Your task to perform on an android device: Show me productivity apps on the Play Store Image 0: 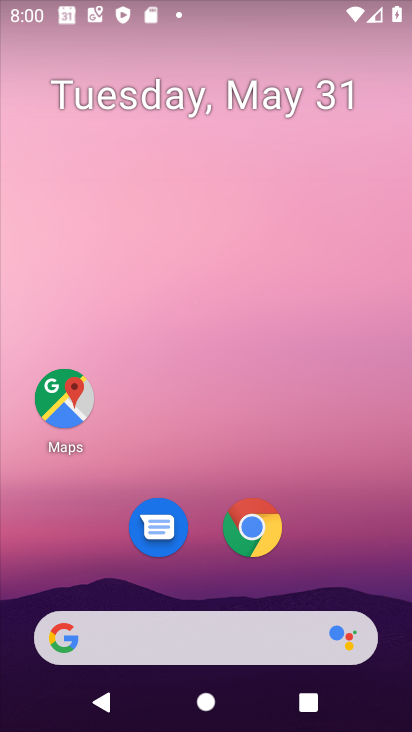
Step 0: drag from (328, 502) to (225, 27)
Your task to perform on an android device: Show me productivity apps on the Play Store Image 1: 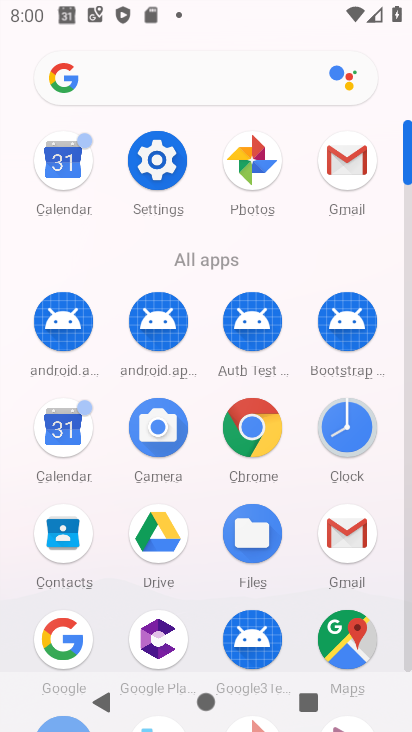
Step 1: drag from (110, 593) to (129, 249)
Your task to perform on an android device: Show me productivity apps on the Play Store Image 2: 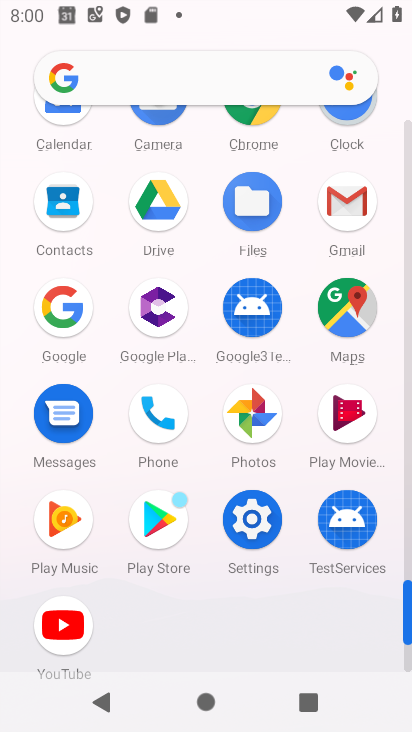
Step 2: click (149, 519)
Your task to perform on an android device: Show me productivity apps on the Play Store Image 3: 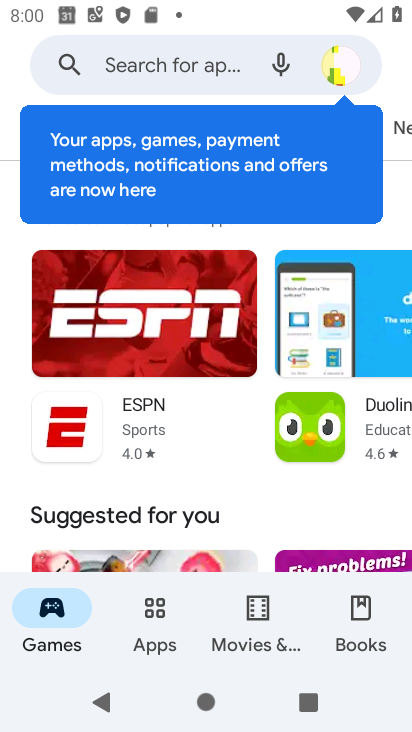
Step 3: click (147, 617)
Your task to perform on an android device: Show me productivity apps on the Play Store Image 4: 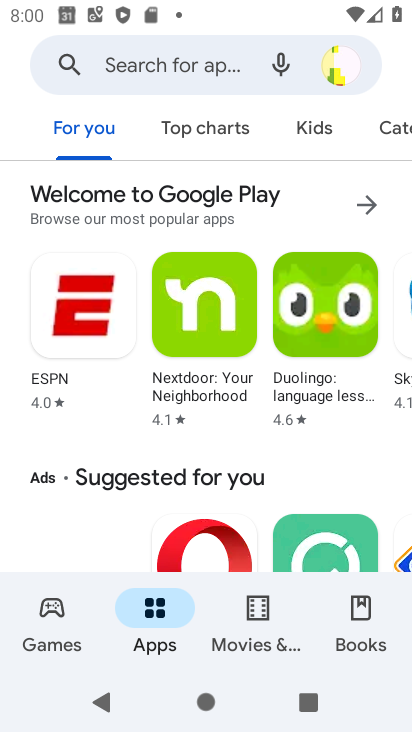
Step 4: task complete